Your task to perform on an android device: Show me recent news Image 0: 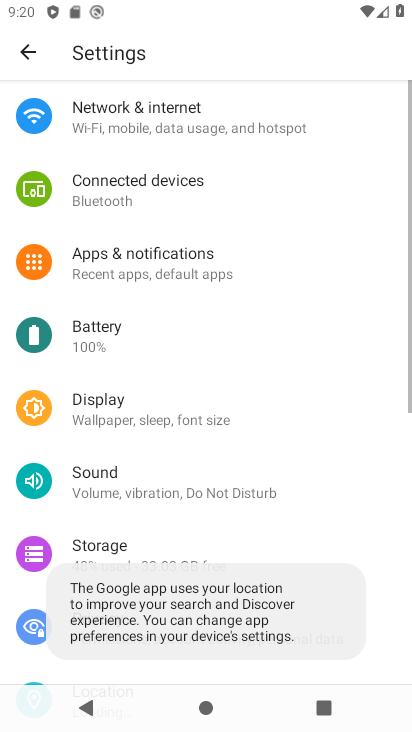
Step 0: press home button
Your task to perform on an android device: Show me recent news Image 1: 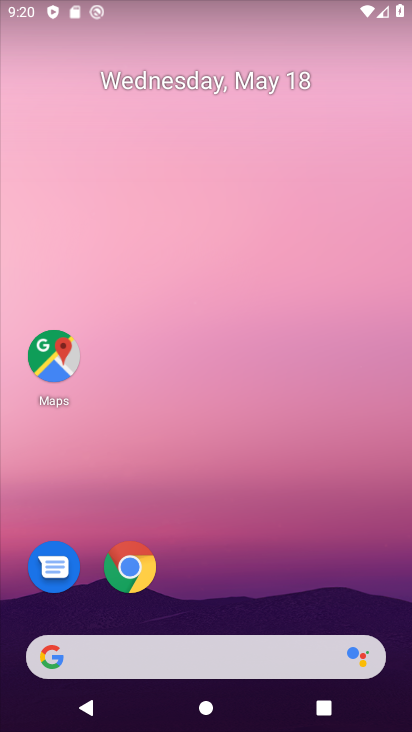
Step 1: drag from (266, 561) to (227, 131)
Your task to perform on an android device: Show me recent news Image 2: 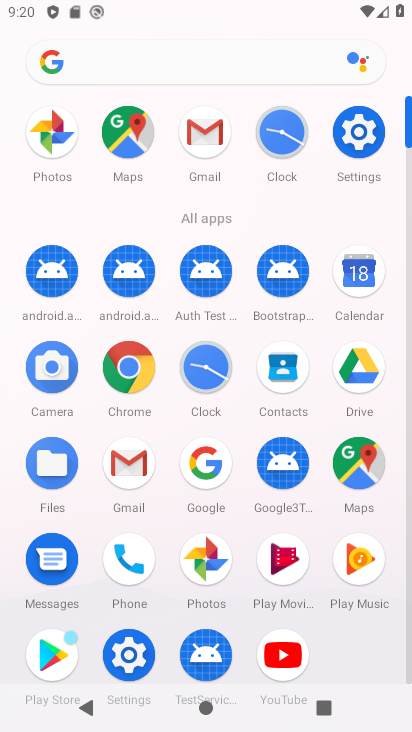
Step 2: click (213, 478)
Your task to perform on an android device: Show me recent news Image 3: 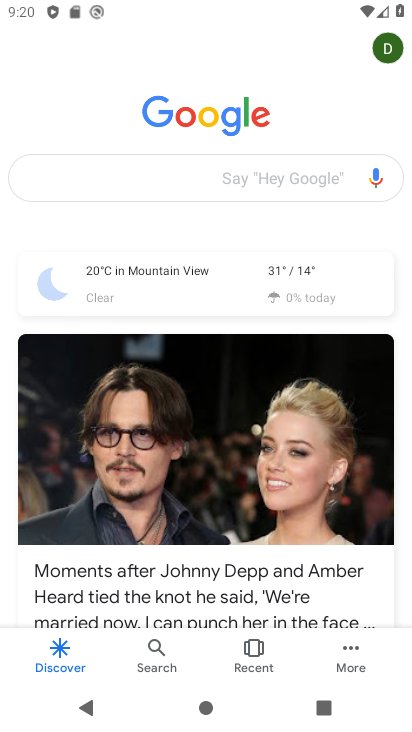
Step 3: click (128, 174)
Your task to perform on an android device: Show me recent news Image 4: 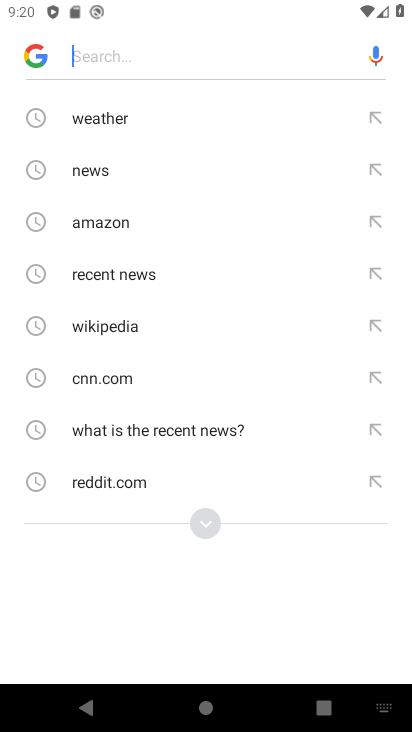
Step 4: click (159, 267)
Your task to perform on an android device: Show me recent news Image 5: 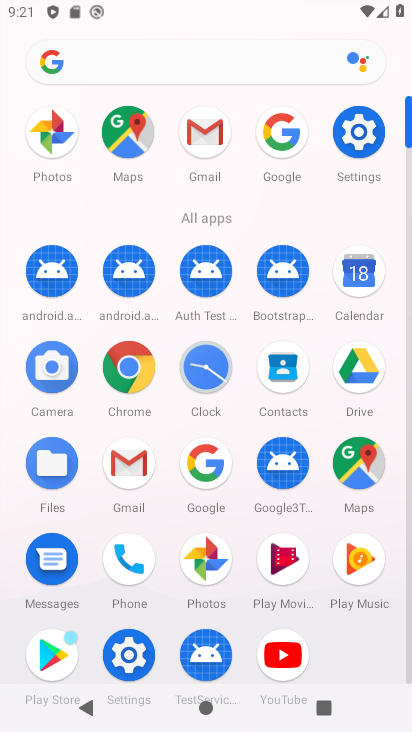
Step 5: click (194, 473)
Your task to perform on an android device: Show me recent news Image 6: 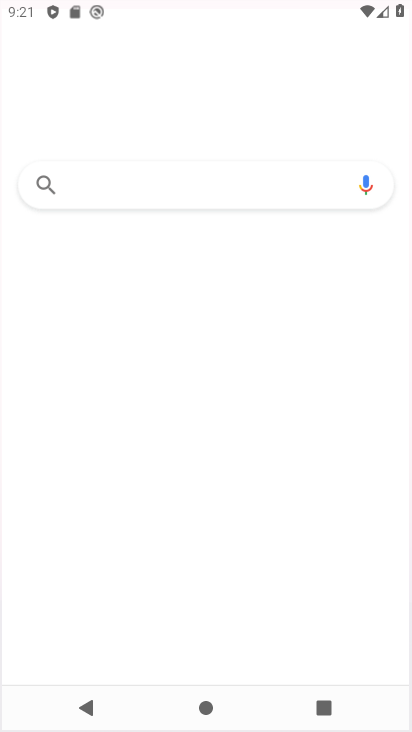
Step 6: click (213, 467)
Your task to perform on an android device: Show me recent news Image 7: 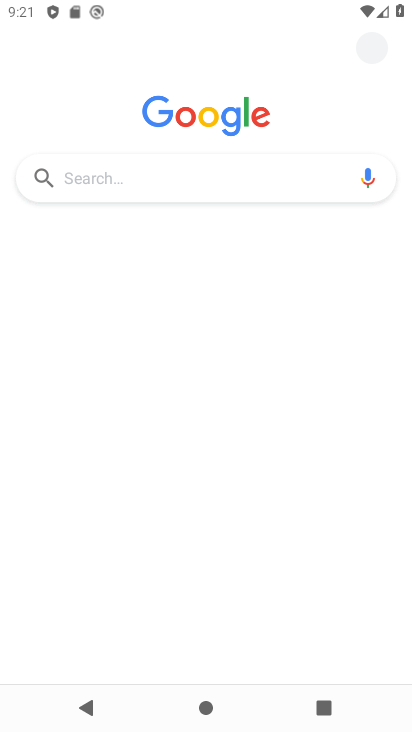
Step 7: click (192, 164)
Your task to perform on an android device: Show me recent news Image 8: 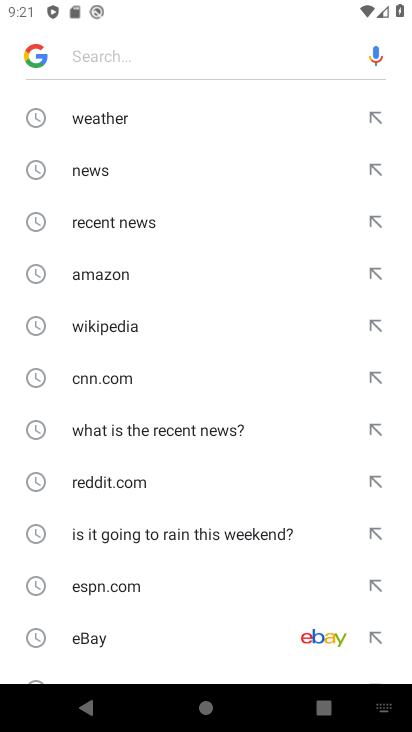
Step 8: click (148, 240)
Your task to perform on an android device: Show me recent news Image 9: 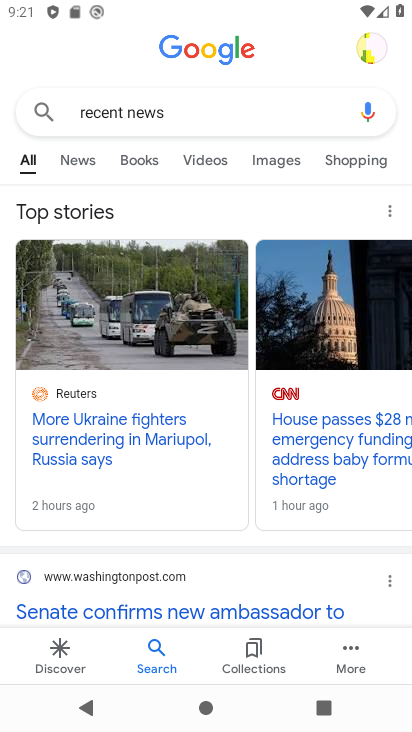
Step 9: task complete